Your task to perform on an android device: Open Chrome and go to settings Image 0: 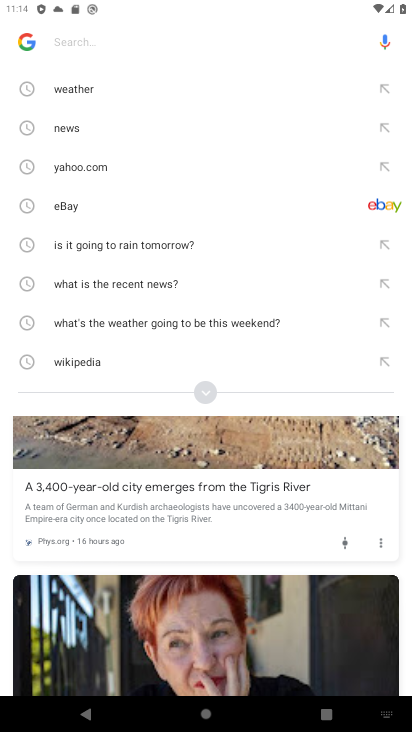
Step 0: press home button
Your task to perform on an android device: Open Chrome and go to settings Image 1: 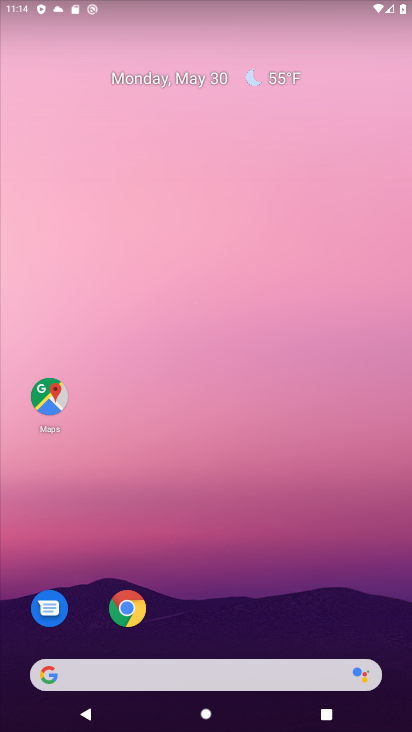
Step 1: click (180, 607)
Your task to perform on an android device: Open Chrome and go to settings Image 2: 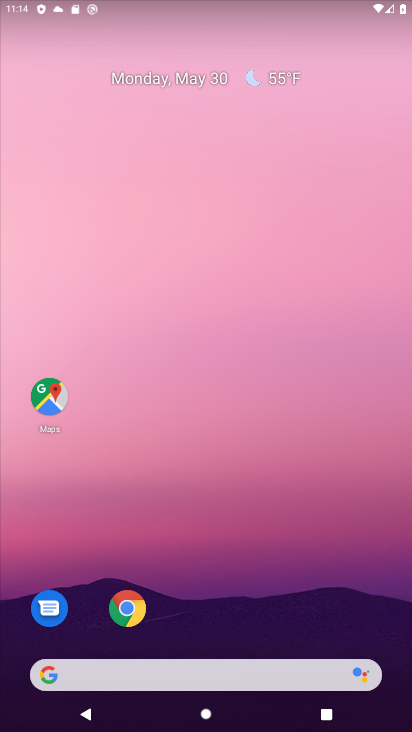
Step 2: click (126, 605)
Your task to perform on an android device: Open Chrome and go to settings Image 3: 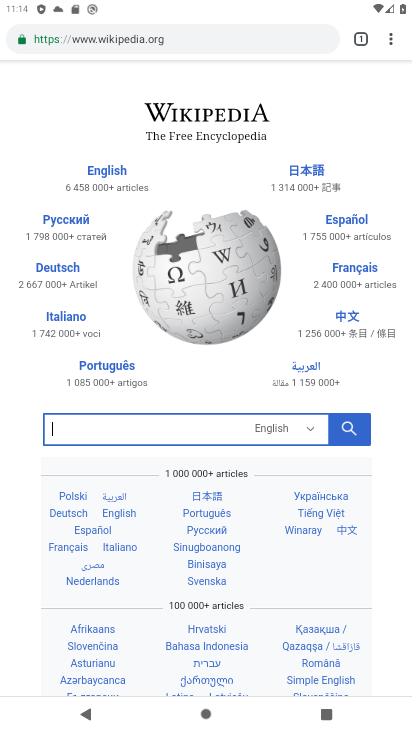
Step 3: click (390, 40)
Your task to perform on an android device: Open Chrome and go to settings Image 4: 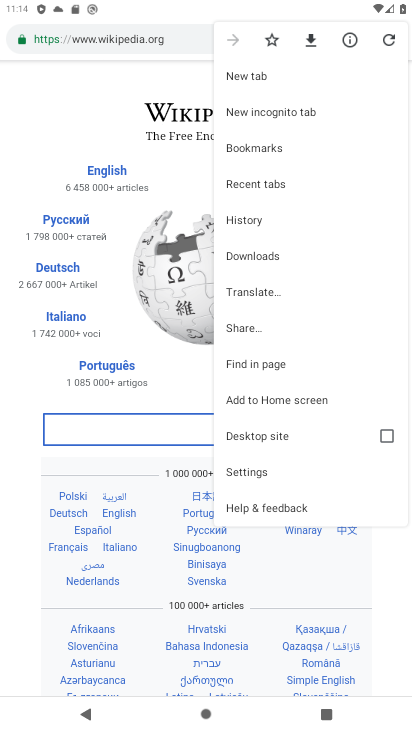
Step 4: click (252, 470)
Your task to perform on an android device: Open Chrome and go to settings Image 5: 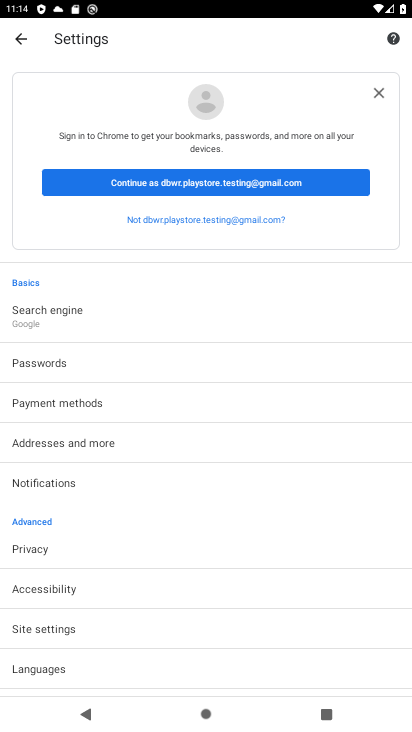
Step 5: task complete